Your task to perform on an android device: toggle improve location accuracy Image 0: 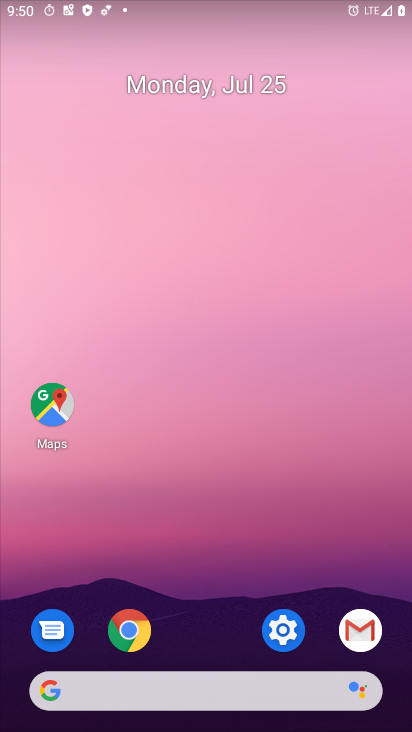
Step 0: click (256, 641)
Your task to perform on an android device: toggle improve location accuracy Image 1: 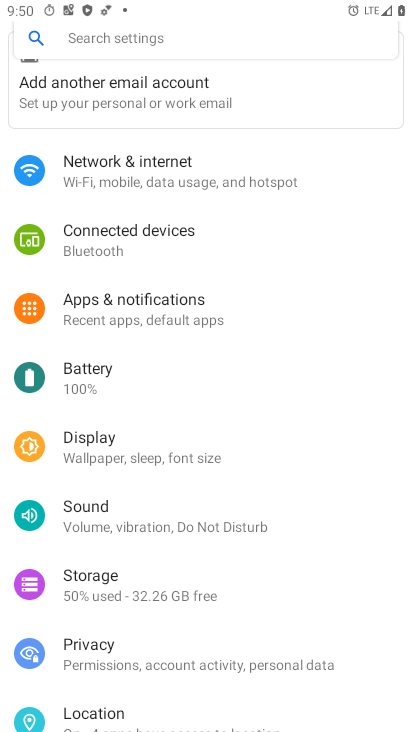
Step 1: click (124, 33)
Your task to perform on an android device: toggle improve location accuracy Image 2: 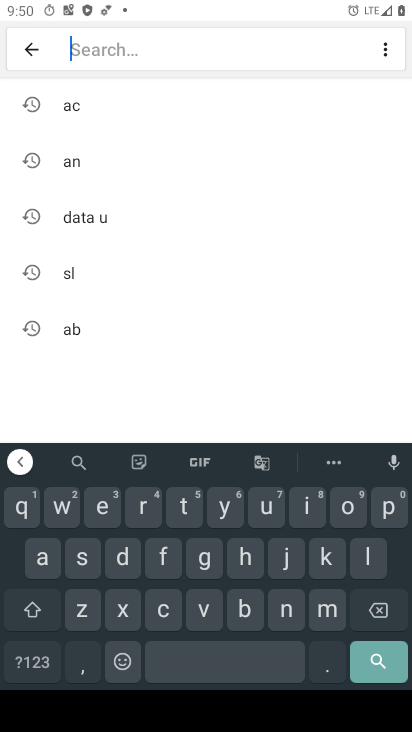
Step 2: click (366, 554)
Your task to perform on an android device: toggle improve location accuracy Image 3: 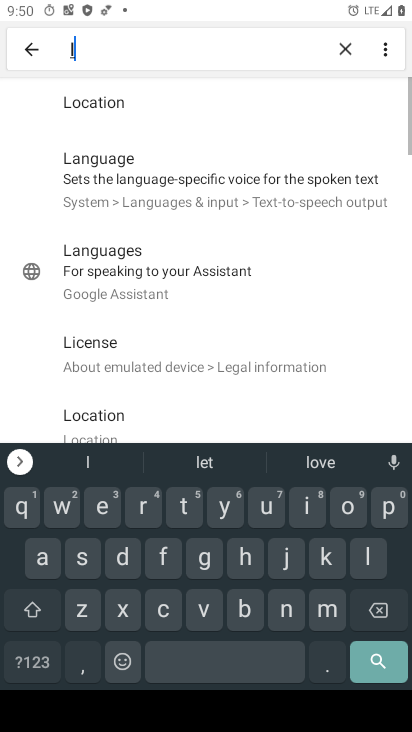
Step 3: click (351, 512)
Your task to perform on an android device: toggle improve location accuracy Image 4: 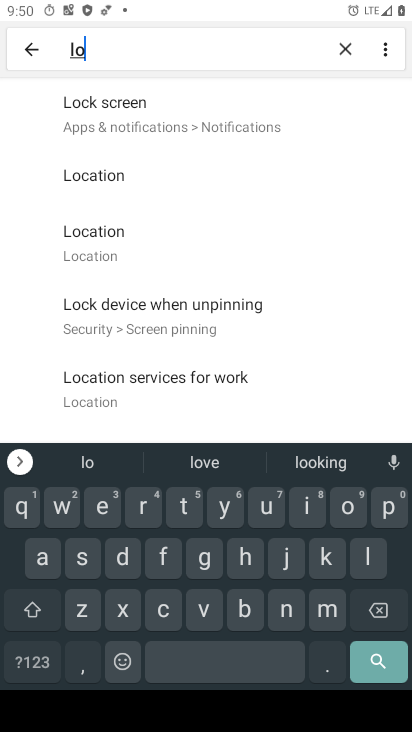
Step 4: click (140, 244)
Your task to perform on an android device: toggle improve location accuracy Image 5: 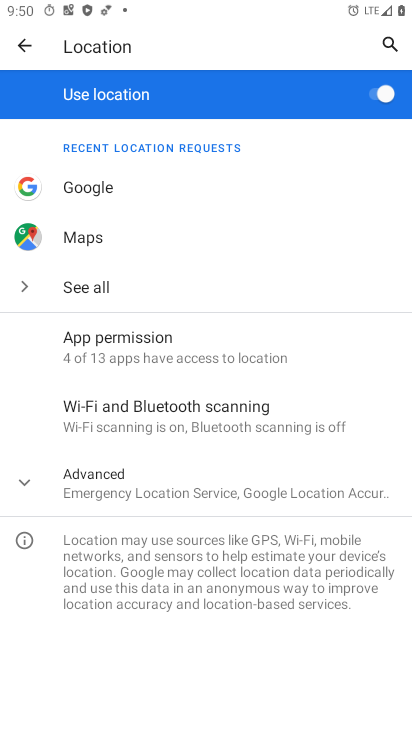
Step 5: click (79, 476)
Your task to perform on an android device: toggle improve location accuracy Image 6: 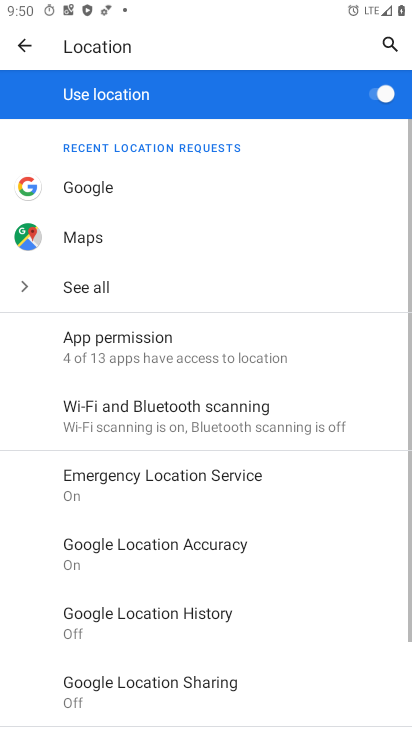
Step 6: click (178, 548)
Your task to perform on an android device: toggle improve location accuracy Image 7: 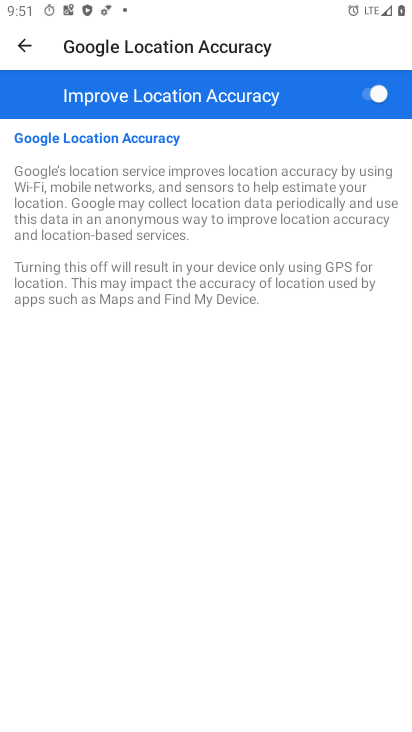
Step 7: task complete